Your task to perform on an android device: Do I have any events today? Image 0: 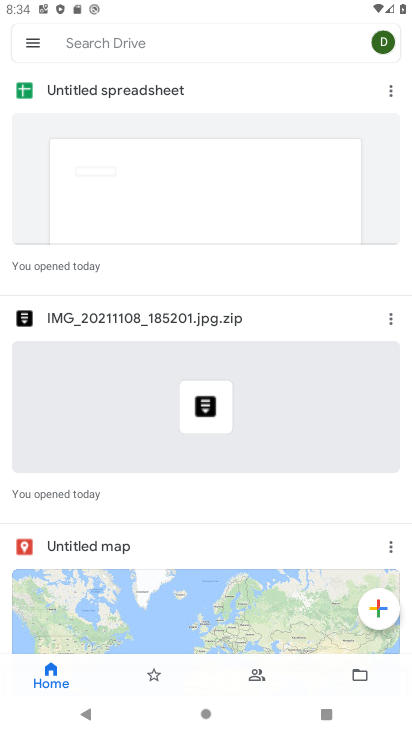
Step 0: press home button
Your task to perform on an android device: Do I have any events today? Image 1: 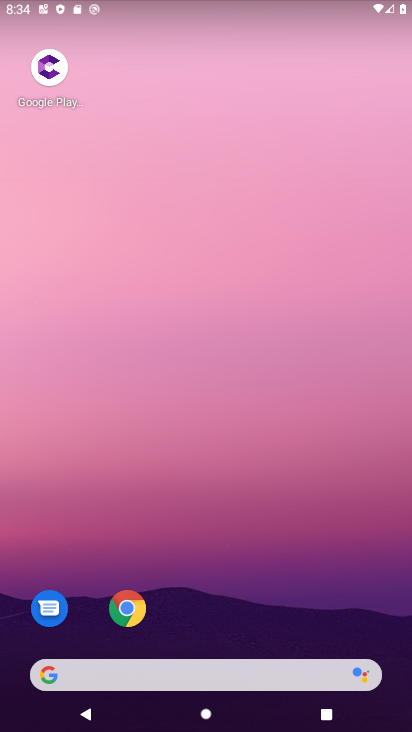
Step 1: drag from (392, 707) to (353, 161)
Your task to perform on an android device: Do I have any events today? Image 2: 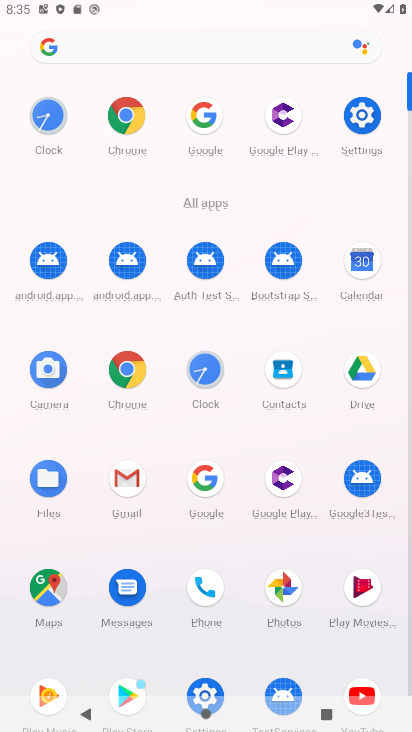
Step 2: click (362, 265)
Your task to perform on an android device: Do I have any events today? Image 3: 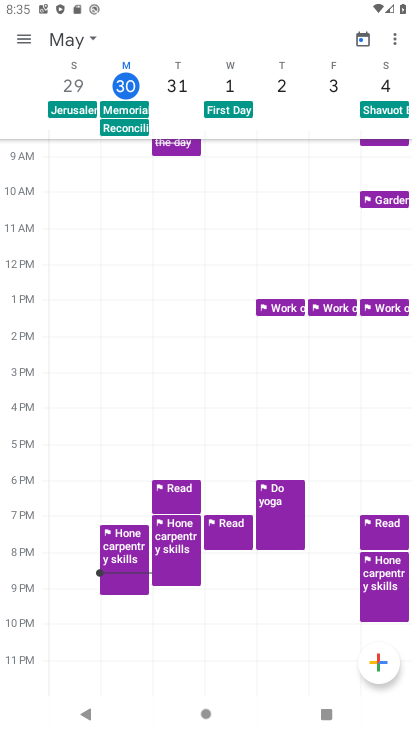
Step 3: click (130, 67)
Your task to perform on an android device: Do I have any events today? Image 4: 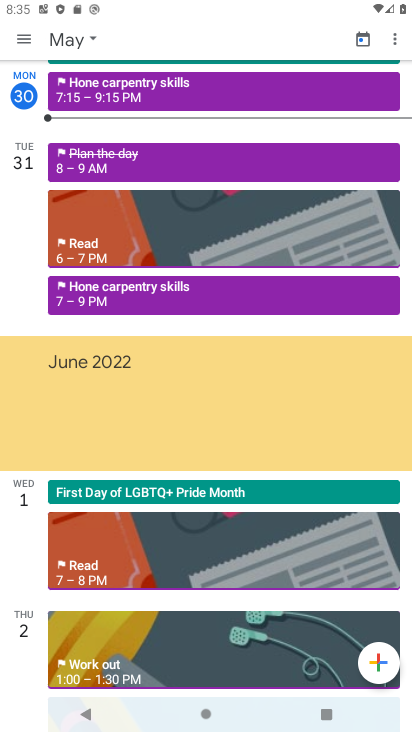
Step 4: click (24, 36)
Your task to perform on an android device: Do I have any events today? Image 5: 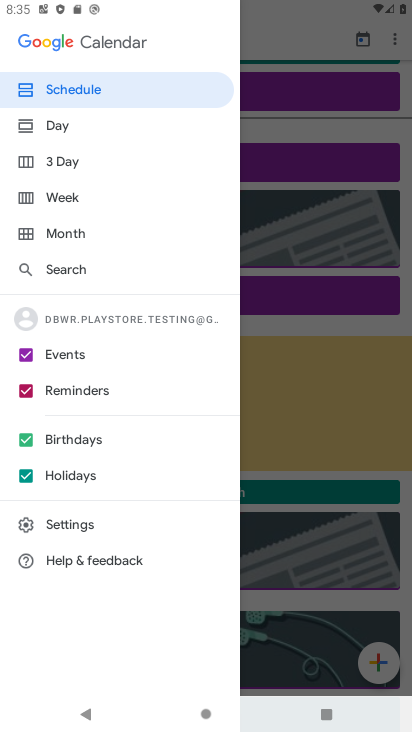
Step 5: click (51, 125)
Your task to perform on an android device: Do I have any events today? Image 6: 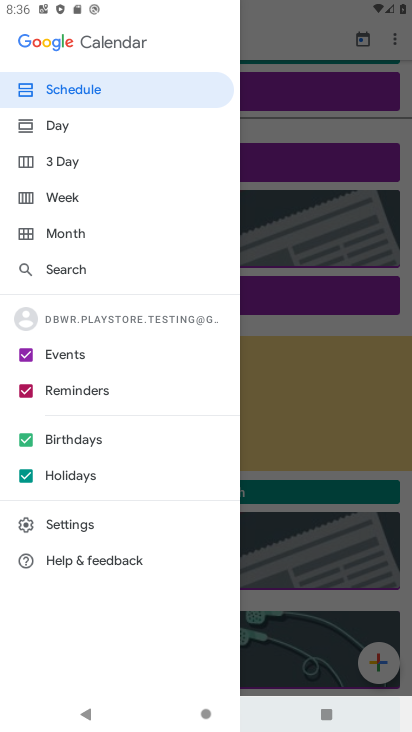
Step 6: click (50, 120)
Your task to perform on an android device: Do I have any events today? Image 7: 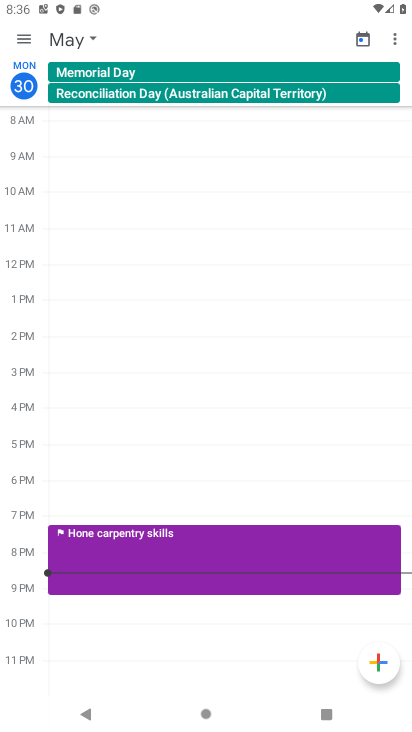
Step 7: task complete